Your task to perform on an android device: Open privacy settings Image 0: 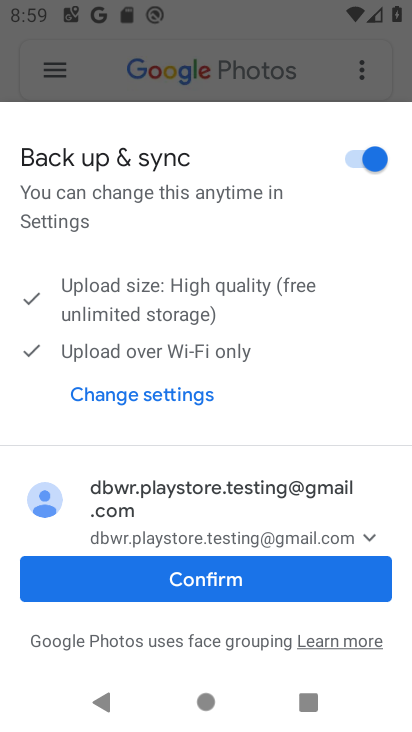
Step 0: drag from (346, 584) to (339, 367)
Your task to perform on an android device: Open privacy settings Image 1: 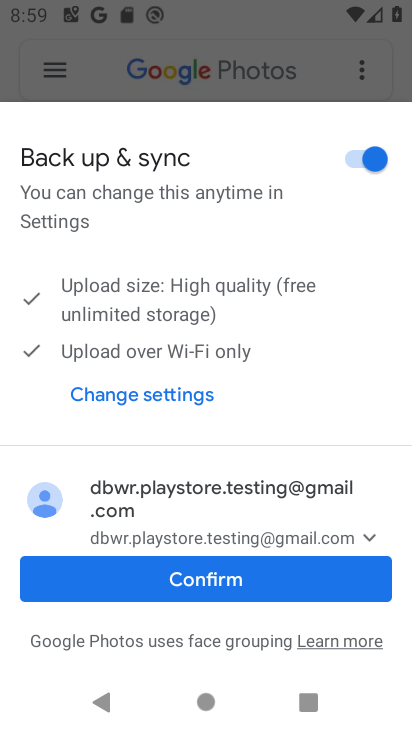
Step 1: press home button
Your task to perform on an android device: Open privacy settings Image 2: 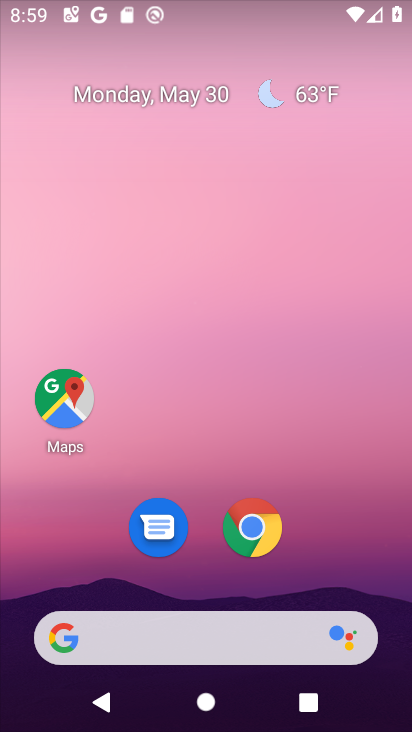
Step 2: drag from (311, 572) to (243, 199)
Your task to perform on an android device: Open privacy settings Image 3: 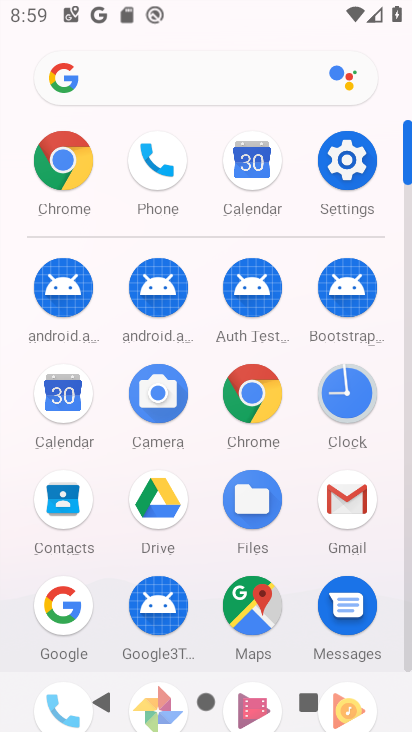
Step 3: click (345, 153)
Your task to perform on an android device: Open privacy settings Image 4: 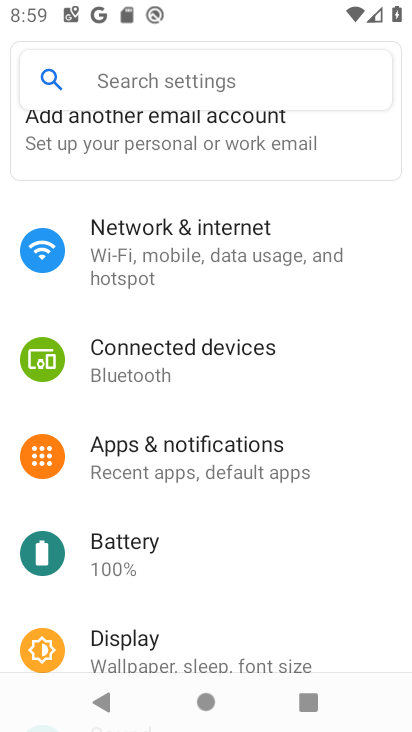
Step 4: drag from (248, 594) to (325, 230)
Your task to perform on an android device: Open privacy settings Image 5: 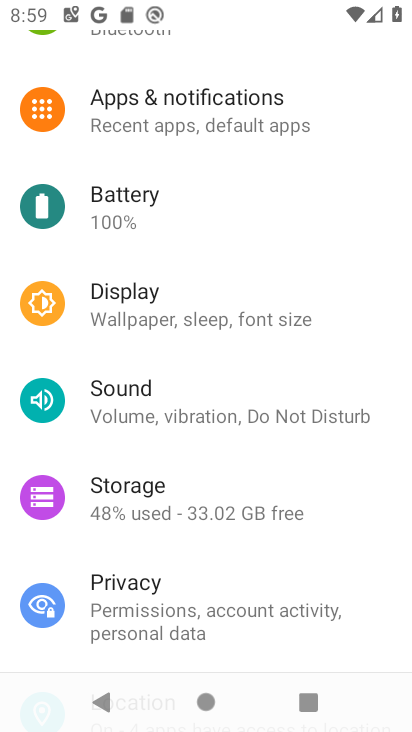
Step 5: drag from (167, 491) to (228, 238)
Your task to perform on an android device: Open privacy settings Image 6: 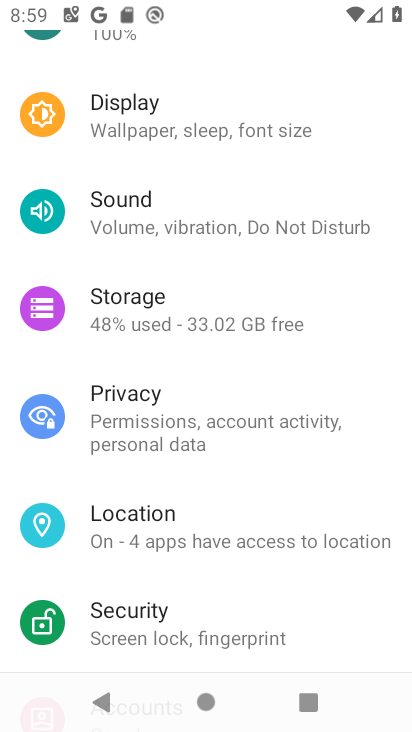
Step 6: click (200, 433)
Your task to perform on an android device: Open privacy settings Image 7: 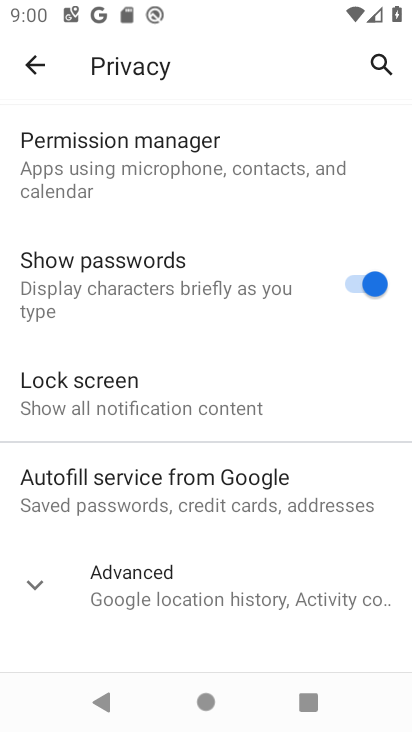
Step 7: task complete